Your task to perform on an android device: Open Google Chrome Image 0: 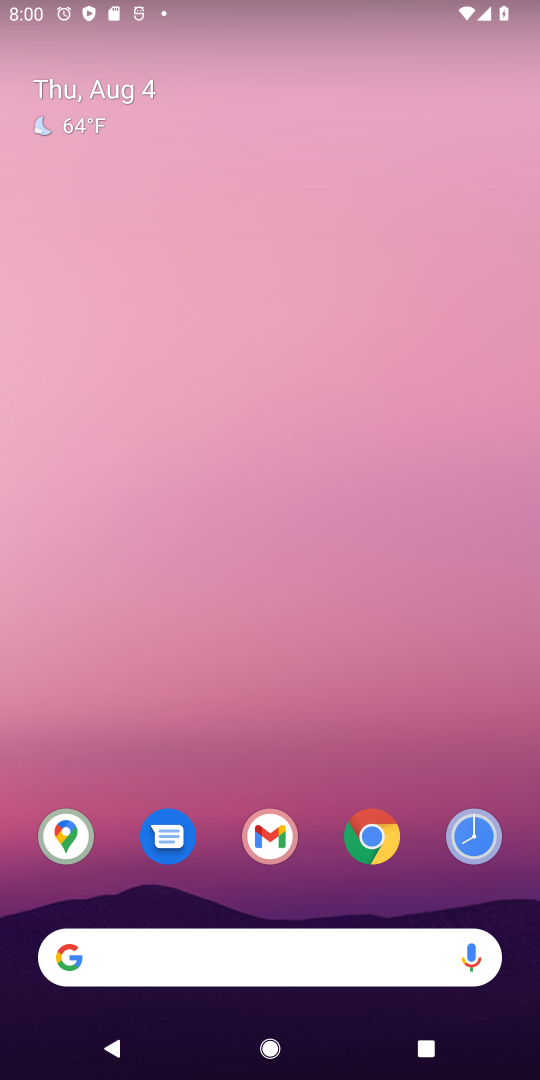
Step 0: click (382, 836)
Your task to perform on an android device: Open Google Chrome Image 1: 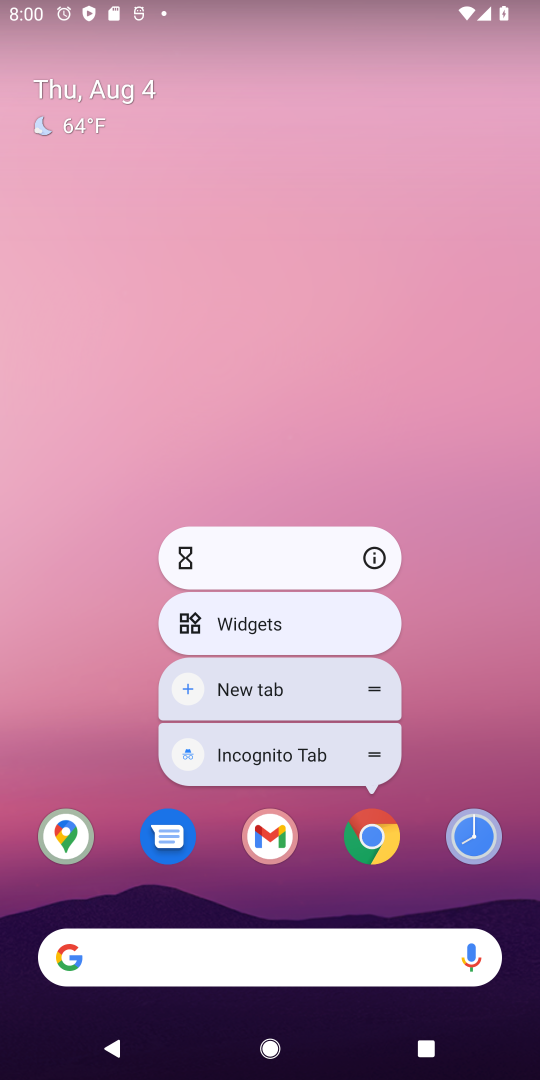
Step 1: click (387, 845)
Your task to perform on an android device: Open Google Chrome Image 2: 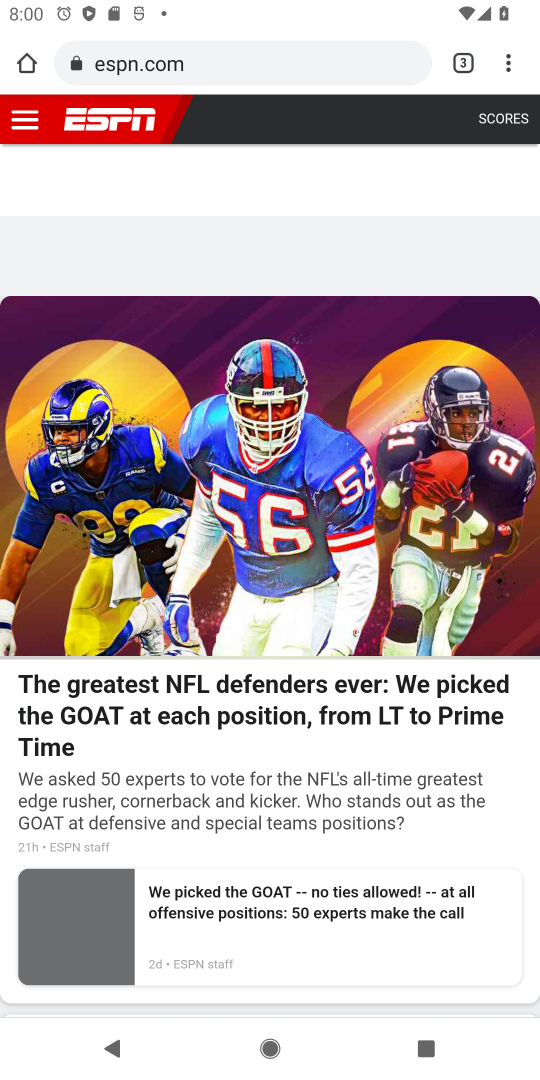
Step 2: task complete